Your task to perform on an android device: Search for seafood restaurants on Google Maps Image 0: 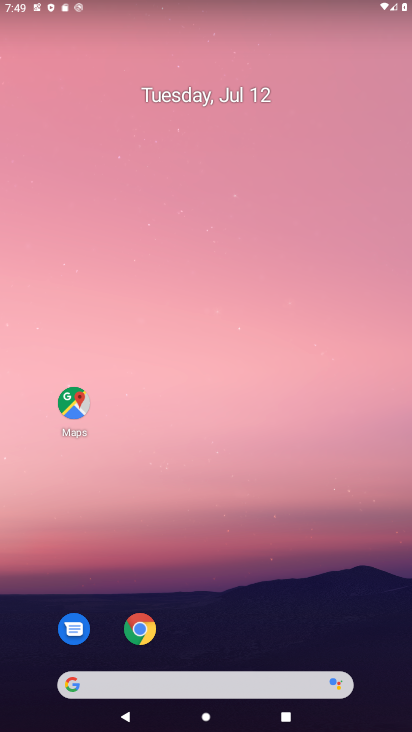
Step 0: drag from (234, 684) to (194, 160)
Your task to perform on an android device: Search for seafood restaurants on Google Maps Image 1: 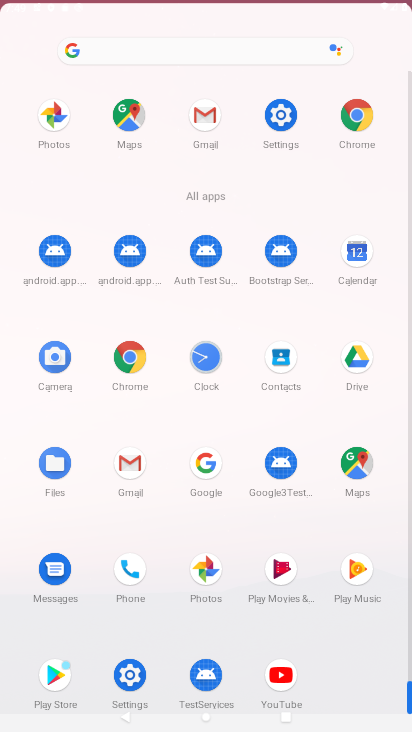
Step 1: drag from (249, 492) to (253, 153)
Your task to perform on an android device: Search for seafood restaurants on Google Maps Image 2: 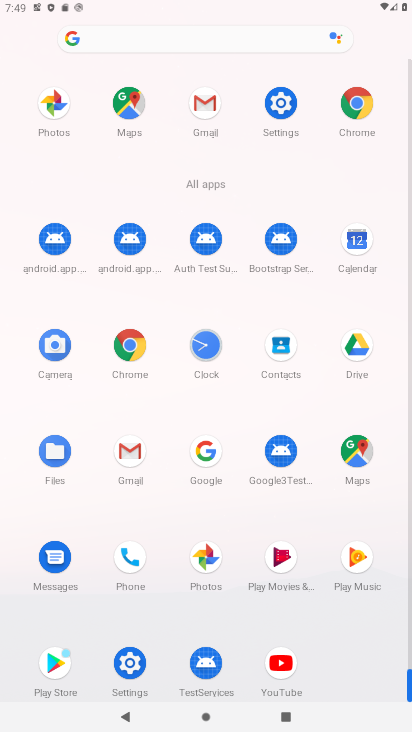
Step 2: click (348, 447)
Your task to perform on an android device: Search for seafood restaurants on Google Maps Image 3: 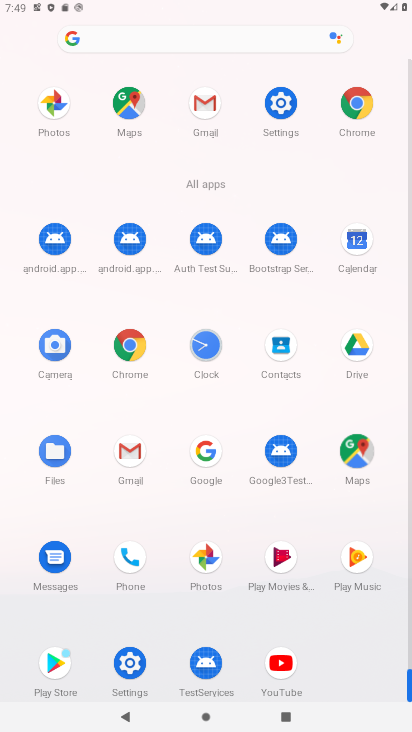
Step 3: click (347, 448)
Your task to perform on an android device: Search for seafood restaurants on Google Maps Image 4: 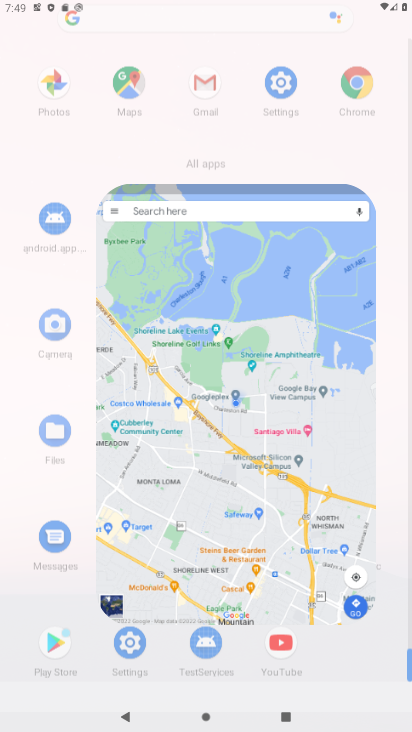
Step 4: click (349, 452)
Your task to perform on an android device: Search for seafood restaurants on Google Maps Image 5: 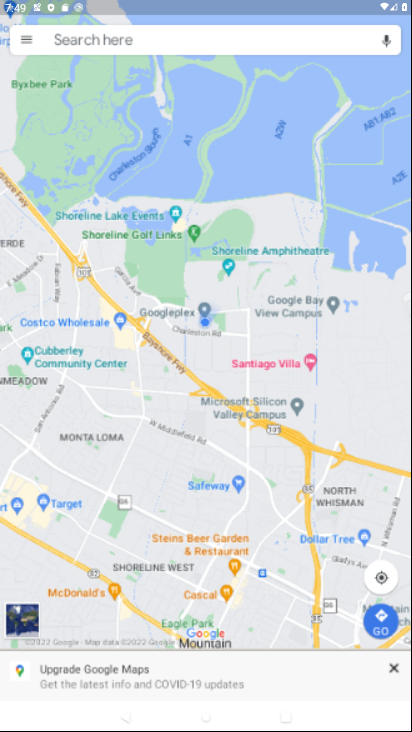
Step 5: click (352, 454)
Your task to perform on an android device: Search for seafood restaurants on Google Maps Image 6: 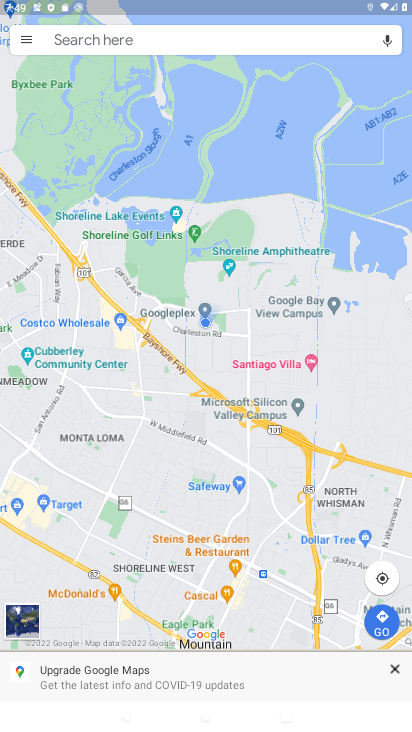
Step 6: click (75, 32)
Your task to perform on an android device: Search for seafood restaurants on Google Maps Image 7: 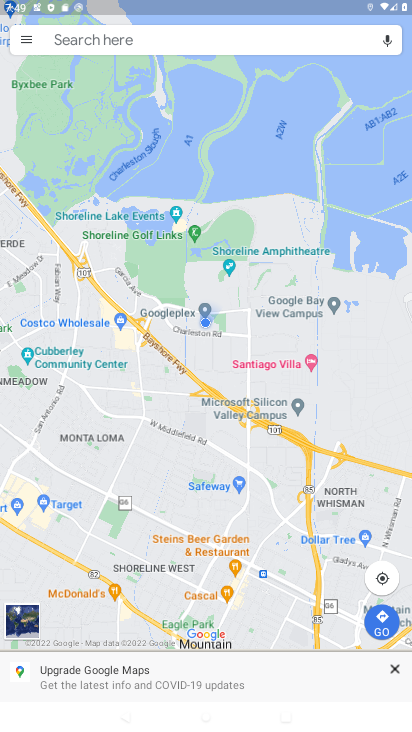
Step 7: click (75, 32)
Your task to perform on an android device: Search for seafood restaurants on Google Maps Image 8: 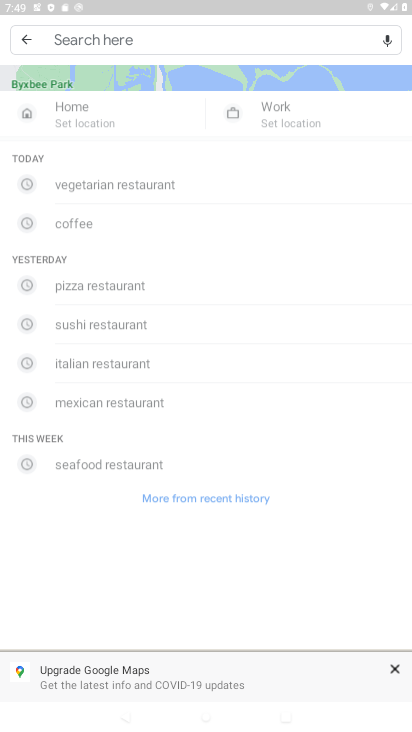
Step 8: click (82, 36)
Your task to perform on an android device: Search for seafood restaurants on Google Maps Image 9: 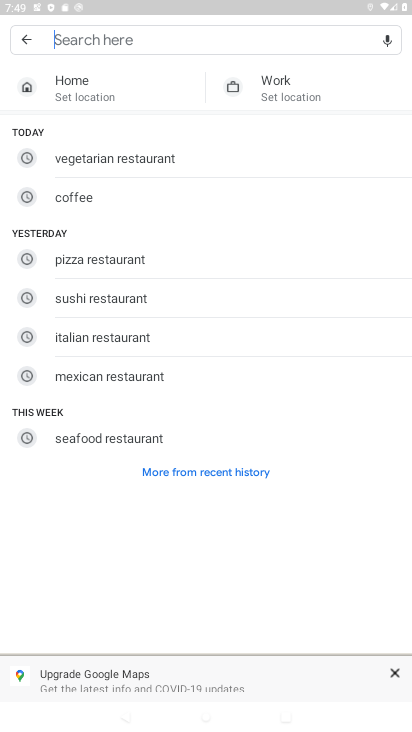
Step 9: click (83, 35)
Your task to perform on an android device: Search for seafood restaurants on Google Maps Image 10: 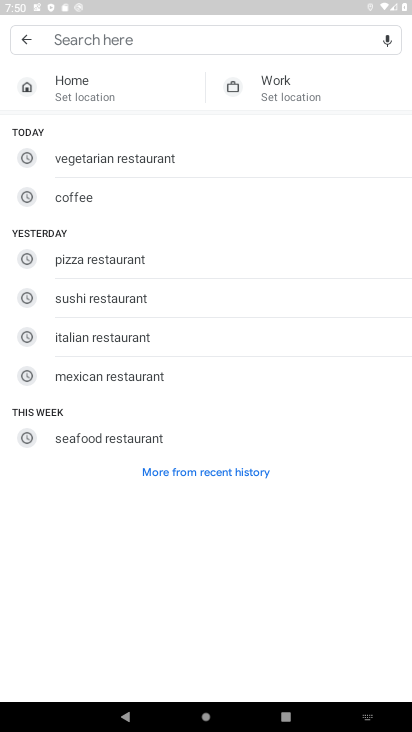
Step 10: click (127, 440)
Your task to perform on an android device: Search for seafood restaurants on Google Maps Image 11: 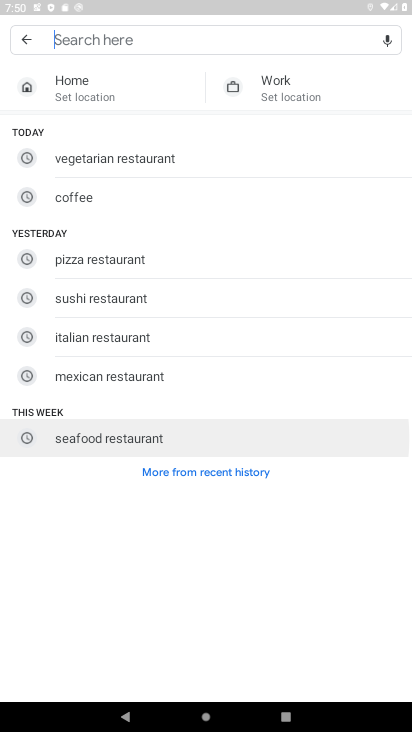
Step 11: click (127, 440)
Your task to perform on an android device: Search for seafood restaurants on Google Maps Image 12: 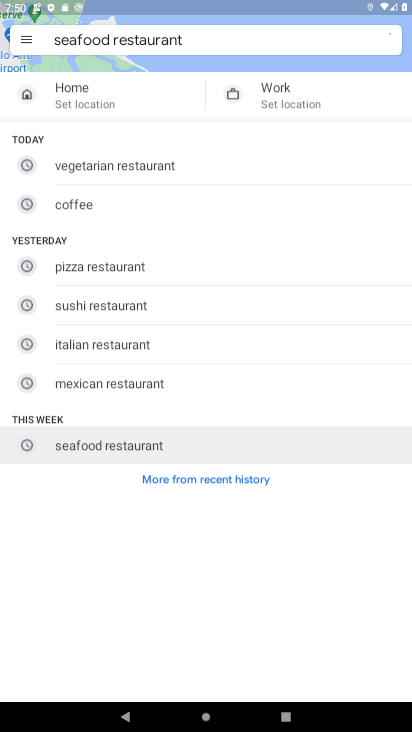
Step 12: click (128, 441)
Your task to perform on an android device: Search for seafood restaurants on Google Maps Image 13: 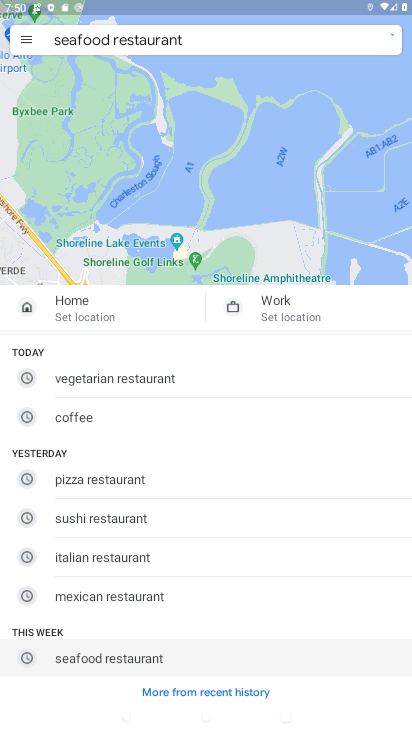
Step 13: click (128, 441)
Your task to perform on an android device: Search for seafood restaurants on Google Maps Image 14: 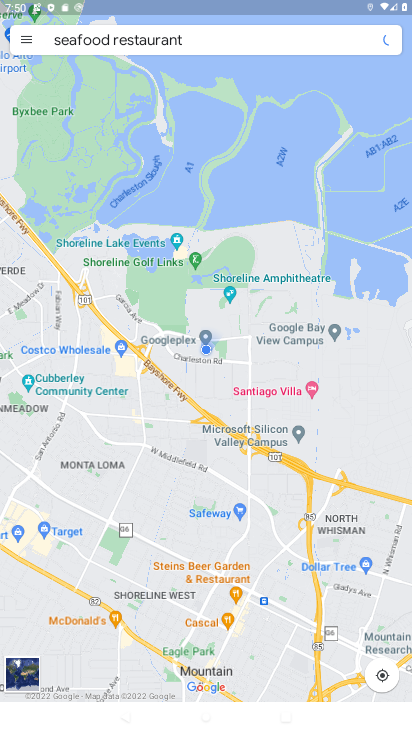
Step 14: task complete